Your task to perform on an android device: Search for Italian restaurants on Maps Image 0: 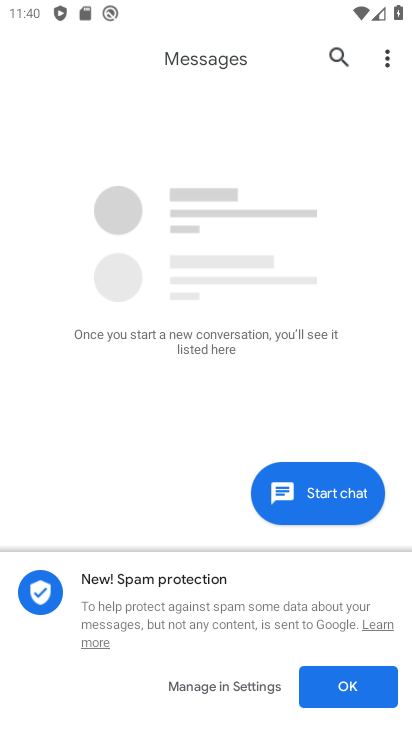
Step 0: press home button
Your task to perform on an android device: Search for Italian restaurants on Maps Image 1: 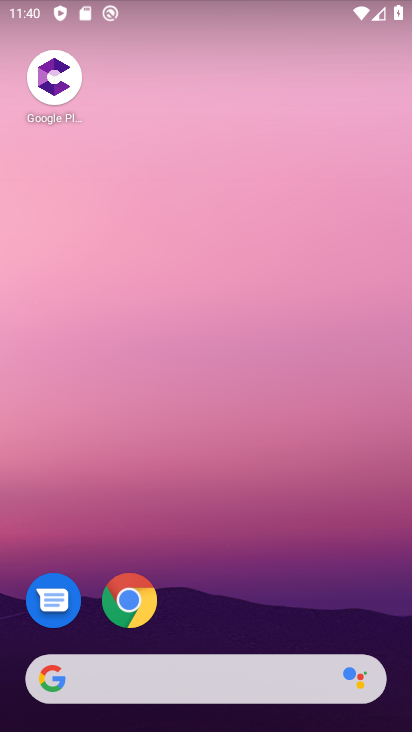
Step 1: drag from (190, 719) to (316, 16)
Your task to perform on an android device: Search for Italian restaurants on Maps Image 2: 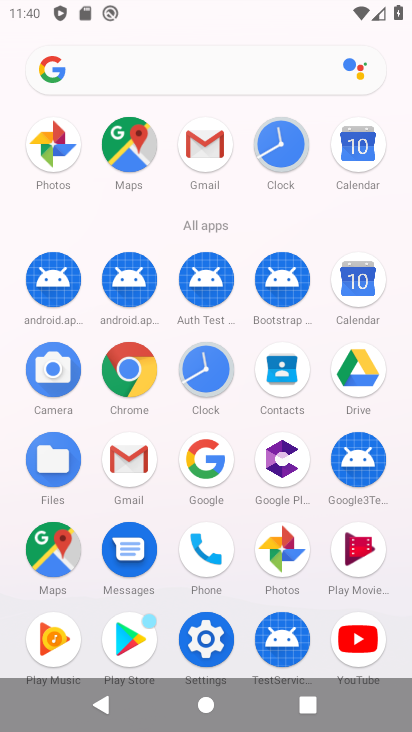
Step 2: click (120, 162)
Your task to perform on an android device: Search for Italian restaurants on Maps Image 3: 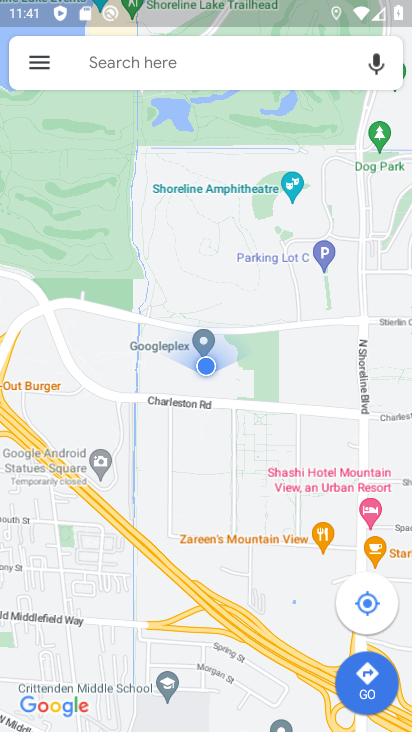
Step 3: click (94, 68)
Your task to perform on an android device: Search for Italian restaurants on Maps Image 4: 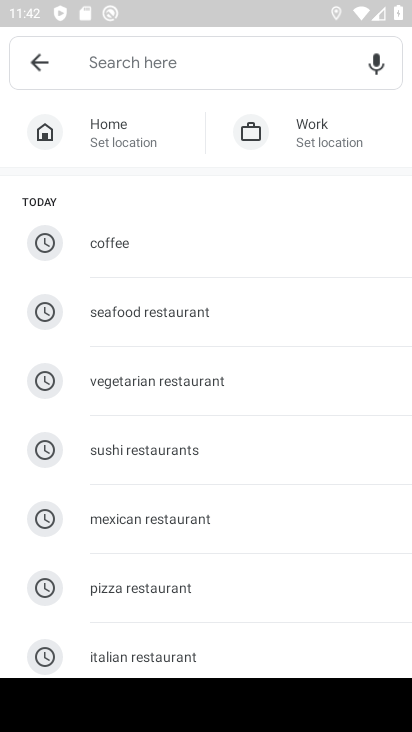
Step 4: click (127, 653)
Your task to perform on an android device: Search for Italian restaurants on Maps Image 5: 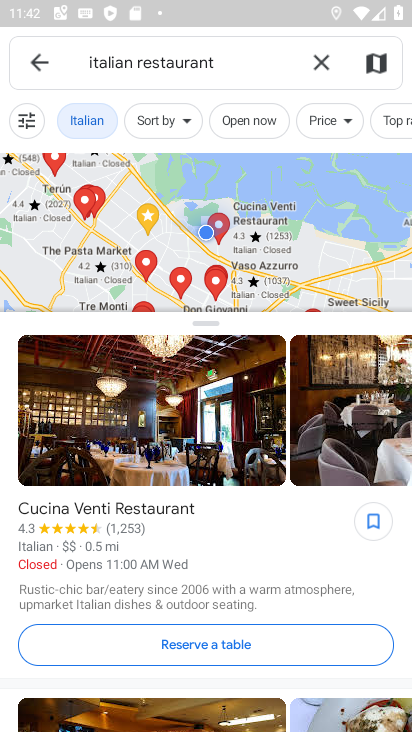
Step 5: task complete